Your task to perform on an android device: turn off improve location accuracy Image 0: 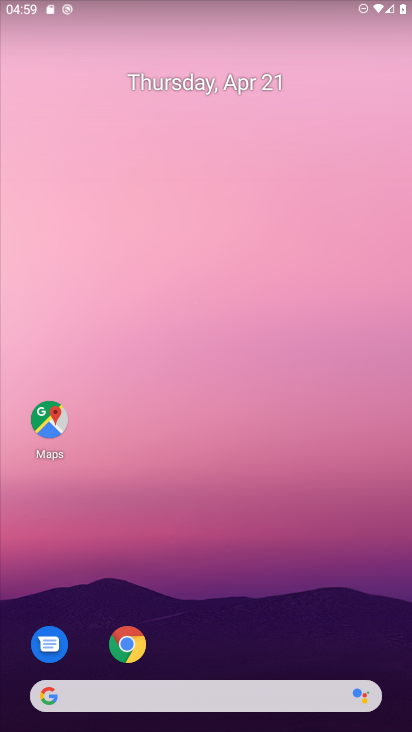
Step 0: drag from (276, 634) to (323, 26)
Your task to perform on an android device: turn off improve location accuracy Image 1: 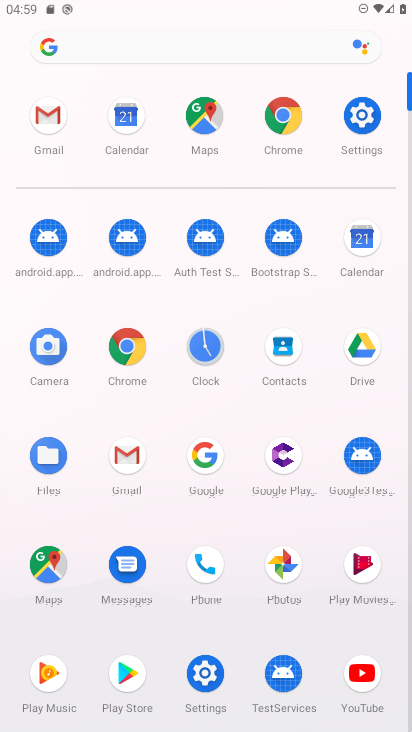
Step 1: click (359, 107)
Your task to perform on an android device: turn off improve location accuracy Image 2: 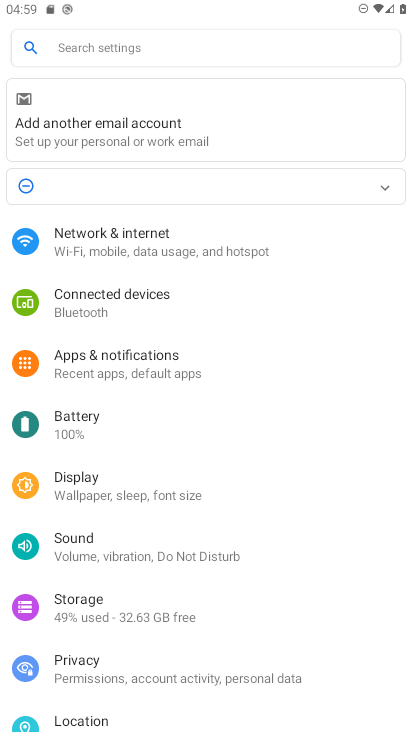
Step 2: drag from (130, 552) to (206, 374)
Your task to perform on an android device: turn off improve location accuracy Image 3: 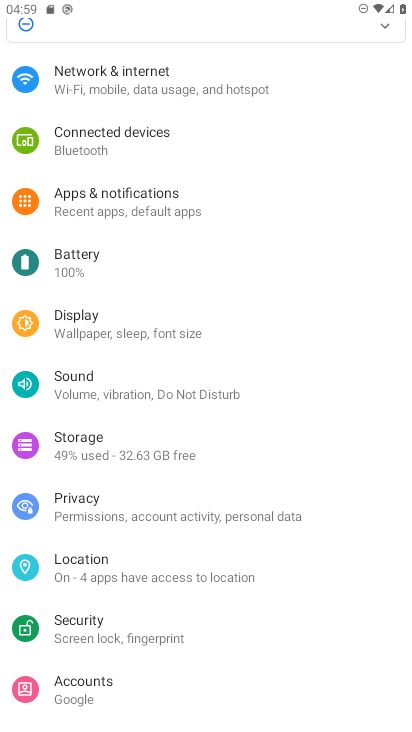
Step 3: click (80, 562)
Your task to perform on an android device: turn off improve location accuracy Image 4: 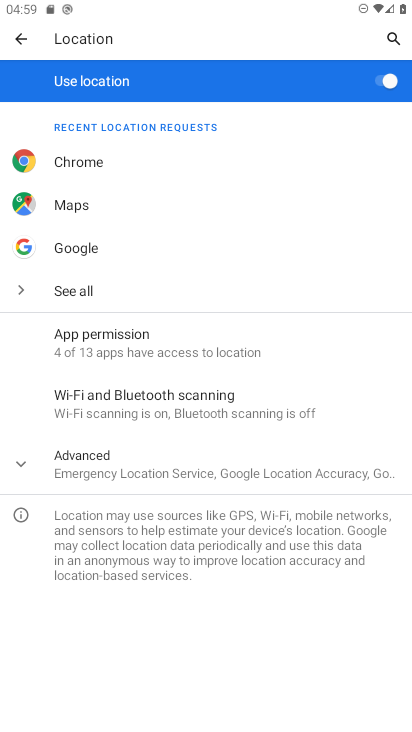
Step 4: click (99, 466)
Your task to perform on an android device: turn off improve location accuracy Image 5: 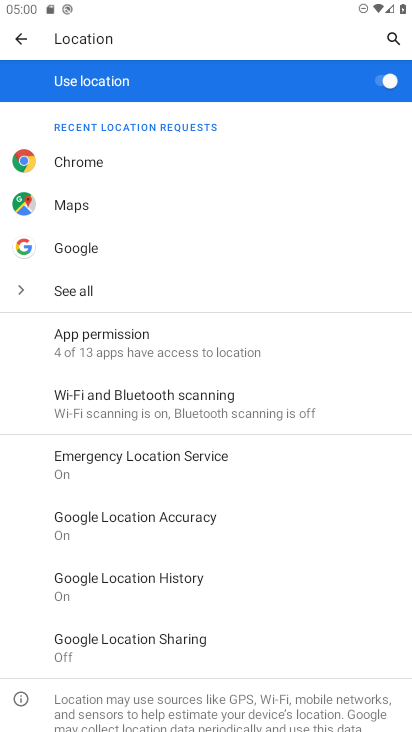
Step 5: click (132, 523)
Your task to perform on an android device: turn off improve location accuracy Image 6: 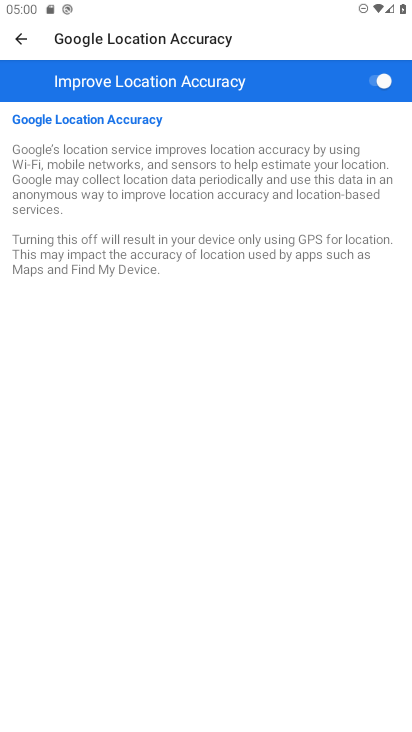
Step 6: click (381, 88)
Your task to perform on an android device: turn off improve location accuracy Image 7: 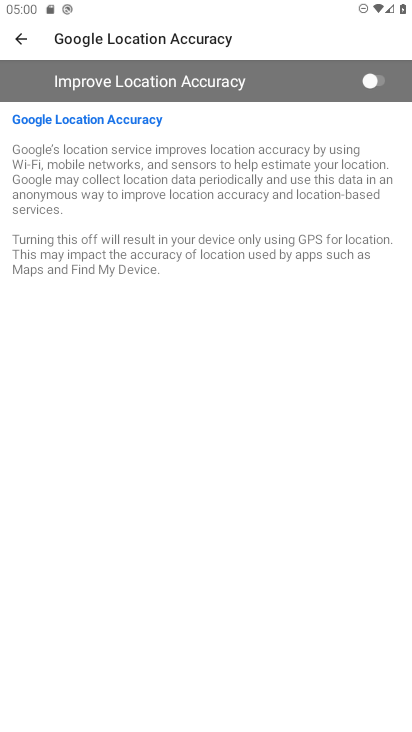
Step 7: task complete